Your task to perform on an android device: turn on the 24-hour format for clock Image 0: 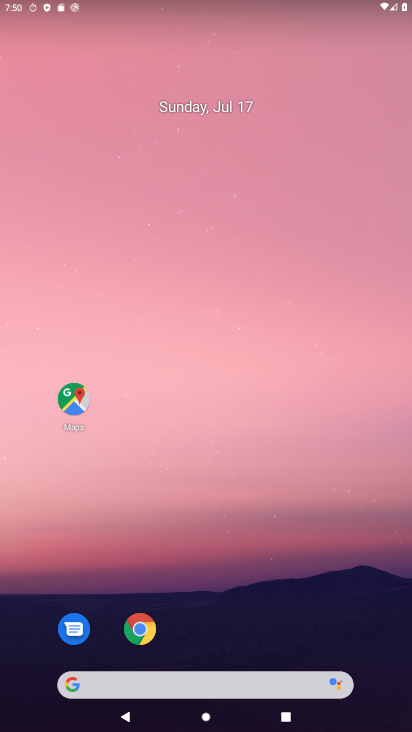
Step 0: drag from (323, 551) to (211, 40)
Your task to perform on an android device: turn on the 24-hour format for clock Image 1: 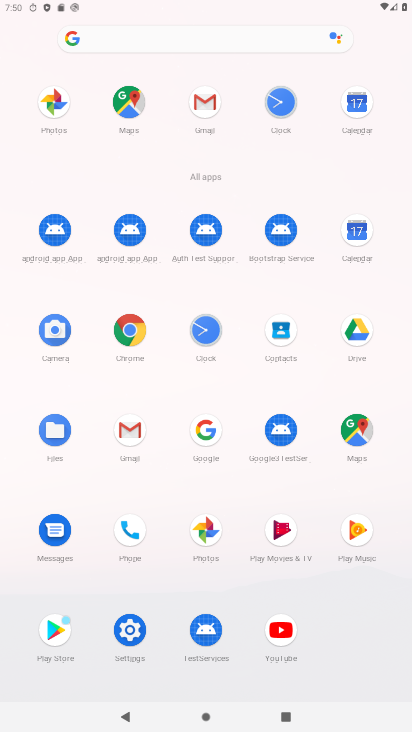
Step 1: click (203, 326)
Your task to perform on an android device: turn on the 24-hour format for clock Image 2: 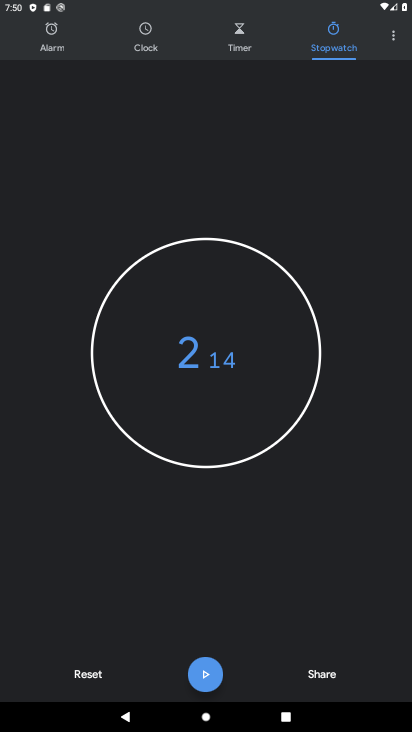
Step 2: click (399, 34)
Your task to perform on an android device: turn on the 24-hour format for clock Image 3: 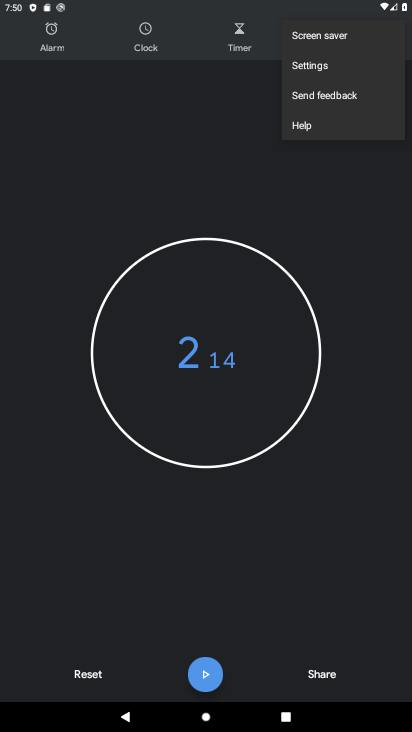
Step 3: click (327, 69)
Your task to perform on an android device: turn on the 24-hour format for clock Image 4: 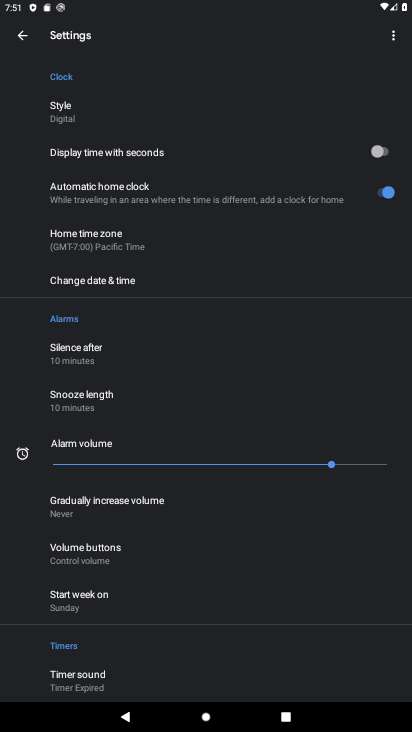
Step 4: click (121, 284)
Your task to perform on an android device: turn on the 24-hour format for clock Image 5: 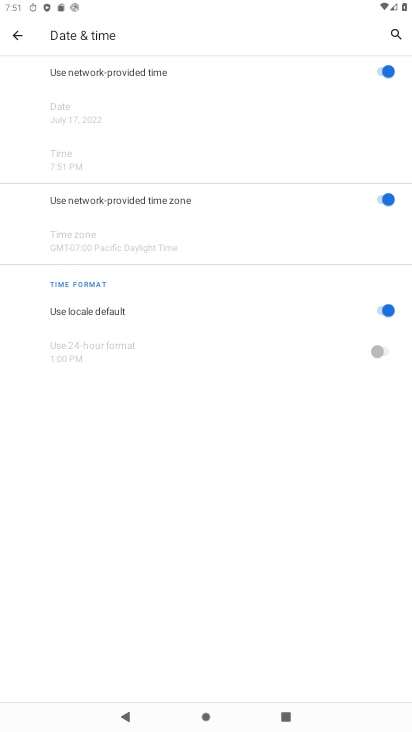
Step 5: click (396, 310)
Your task to perform on an android device: turn on the 24-hour format for clock Image 6: 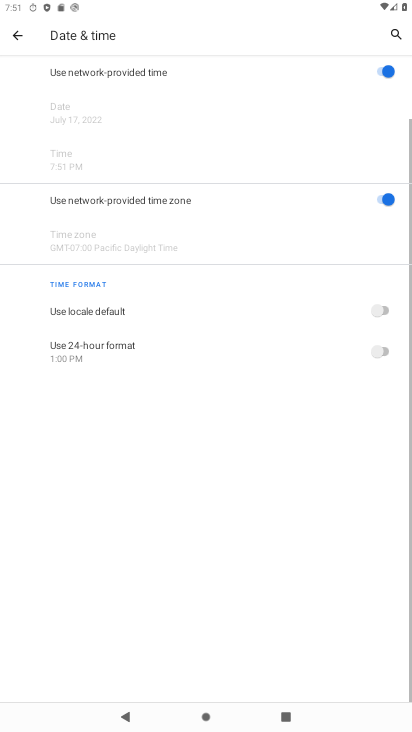
Step 6: click (378, 349)
Your task to perform on an android device: turn on the 24-hour format for clock Image 7: 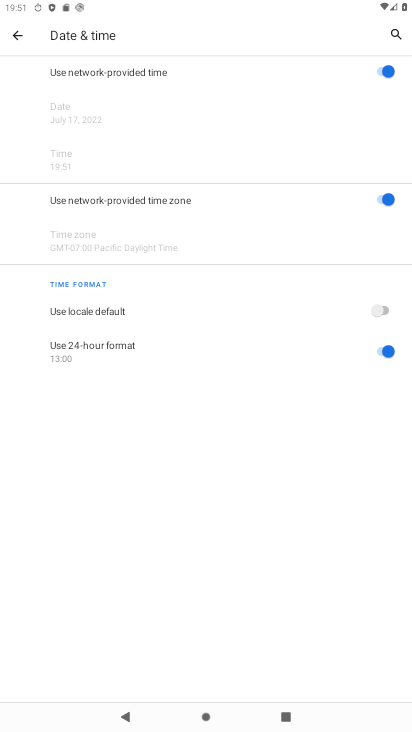
Step 7: task complete